Your task to perform on an android device: see creations saved in the google photos Image 0: 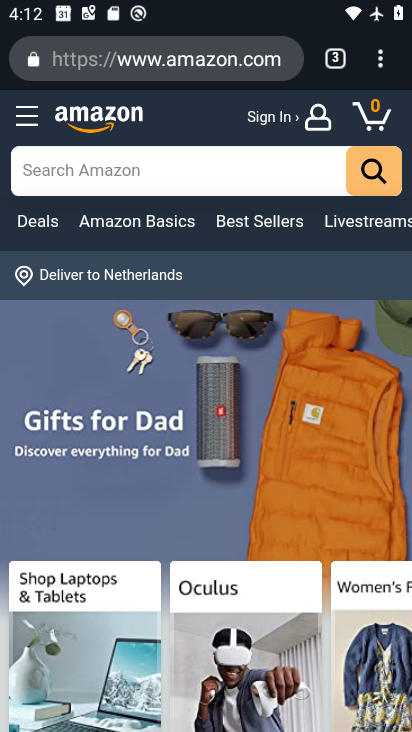
Step 0: press home button
Your task to perform on an android device: see creations saved in the google photos Image 1: 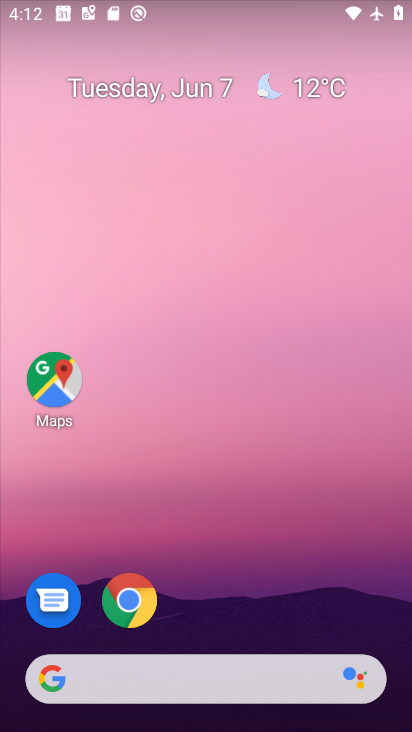
Step 1: drag from (254, 562) to (280, 149)
Your task to perform on an android device: see creations saved in the google photos Image 2: 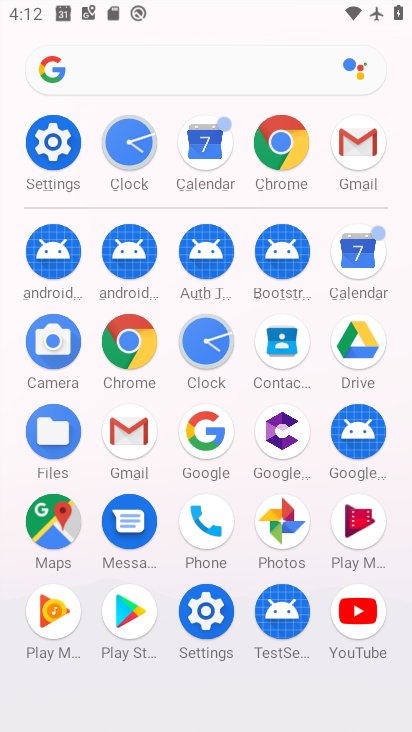
Step 2: click (289, 514)
Your task to perform on an android device: see creations saved in the google photos Image 3: 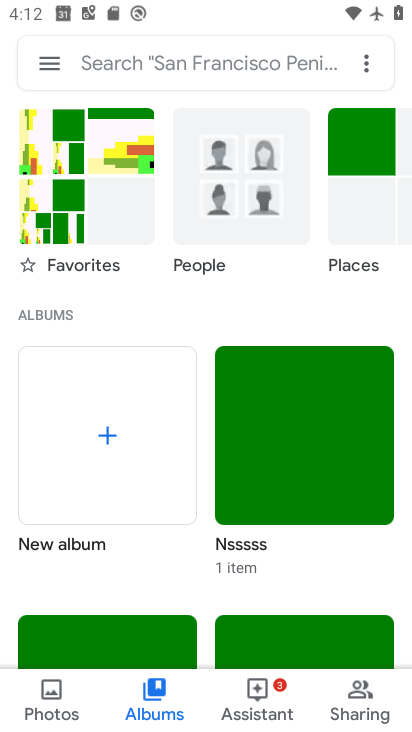
Step 3: click (272, 722)
Your task to perform on an android device: see creations saved in the google photos Image 4: 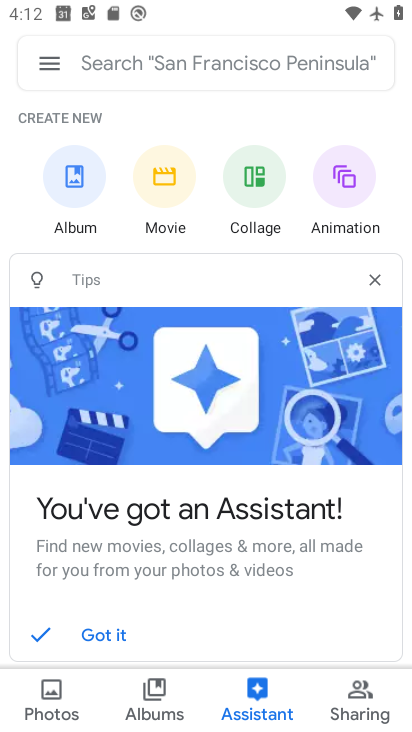
Step 4: task complete